Your task to perform on an android device: change the clock display to show seconds Image 0: 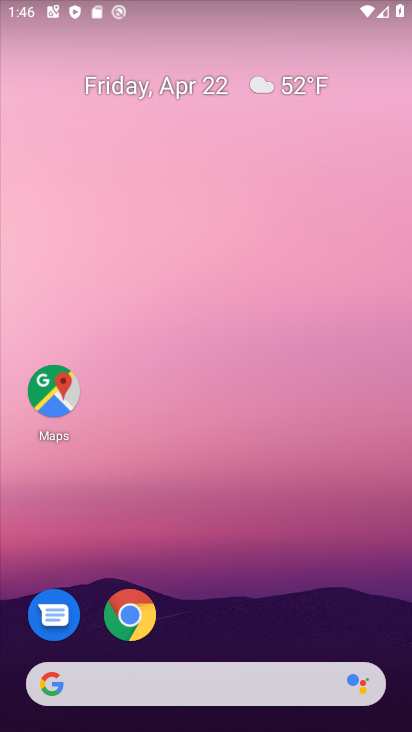
Step 0: drag from (219, 655) to (324, 153)
Your task to perform on an android device: change the clock display to show seconds Image 1: 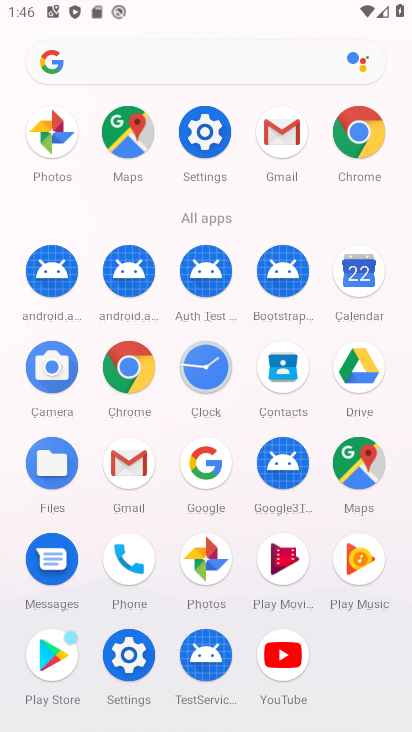
Step 1: click (215, 375)
Your task to perform on an android device: change the clock display to show seconds Image 2: 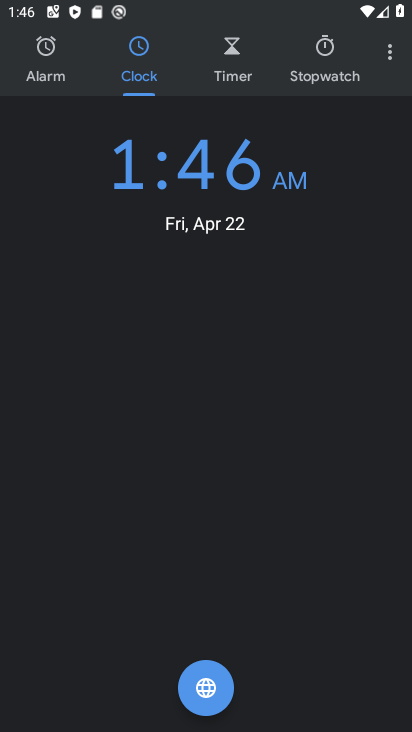
Step 2: click (378, 52)
Your task to perform on an android device: change the clock display to show seconds Image 3: 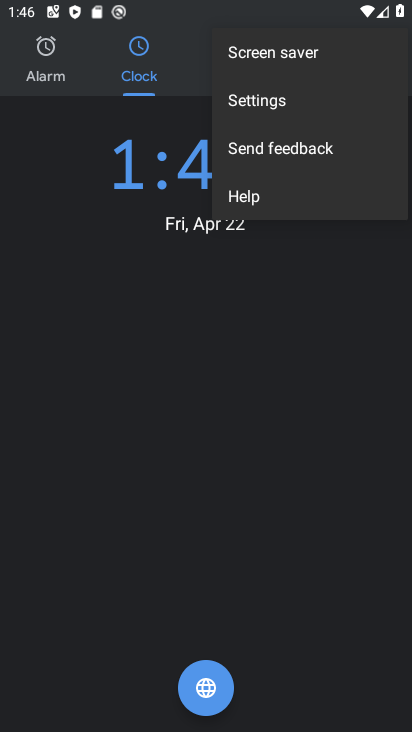
Step 3: click (344, 104)
Your task to perform on an android device: change the clock display to show seconds Image 4: 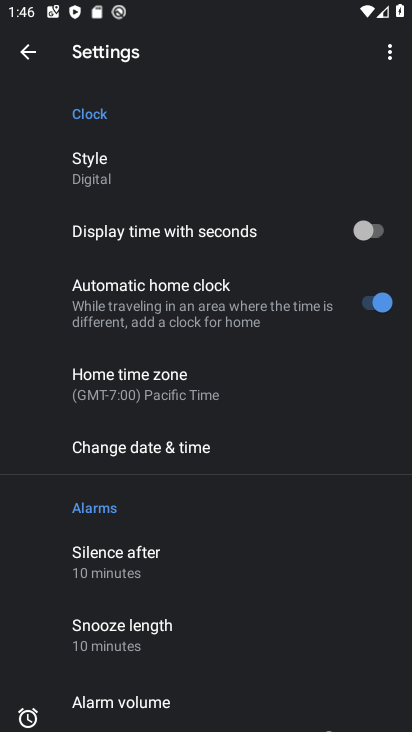
Step 4: click (382, 231)
Your task to perform on an android device: change the clock display to show seconds Image 5: 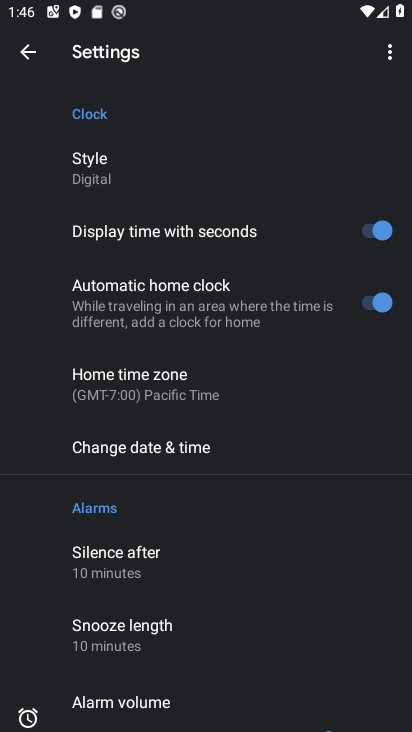
Step 5: task complete